Your task to perform on an android device: remove spam from my inbox in the gmail app Image 0: 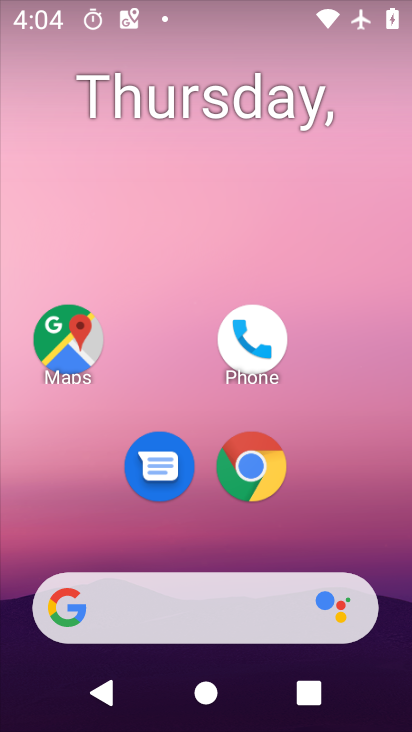
Step 0: drag from (186, 532) to (231, 86)
Your task to perform on an android device: remove spam from my inbox in the gmail app Image 1: 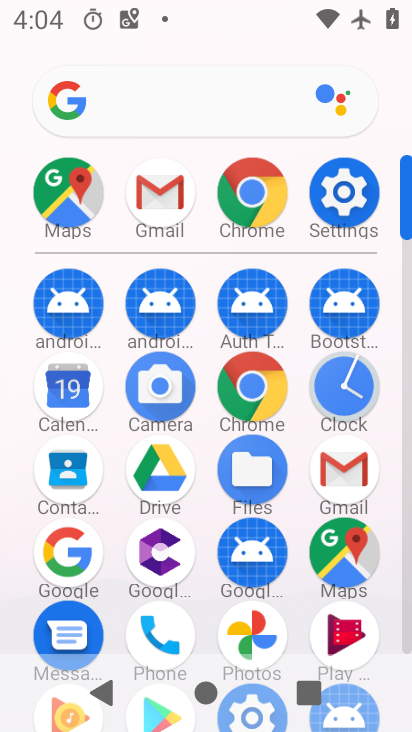
Step 1: click (344, 449)
Your task to perform on an android device: remove spam from my inbox in the gmail app Image 2: 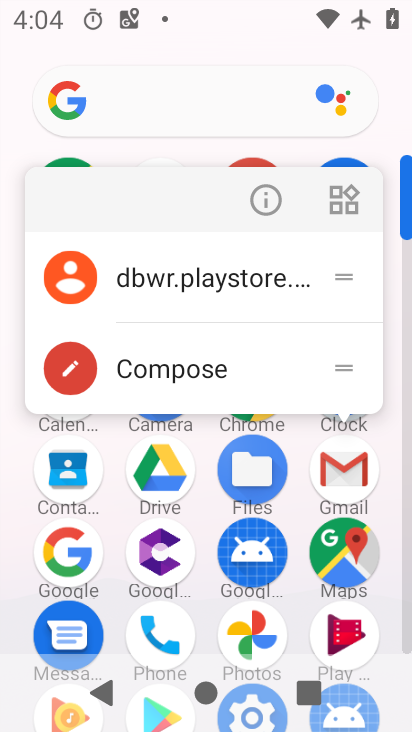
Step 2: click (254, 196)
Your task to perform on an android device: remove spam from my inbox in the gmail app Image 3: 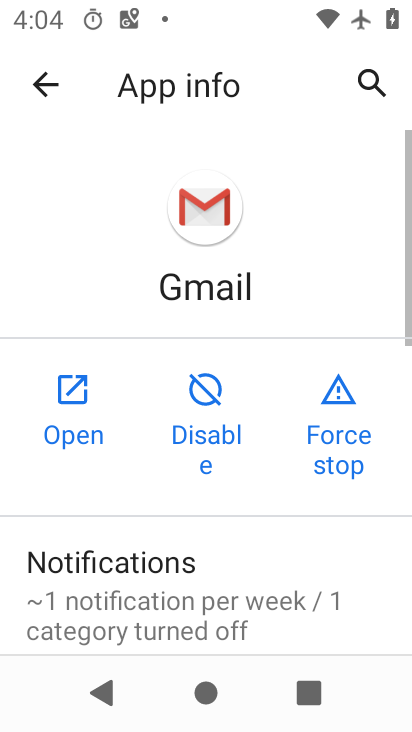
Step 3: click (56, 412)
Your task to perform on an android device: remove spam from my inbox in the gmail app Image 4: 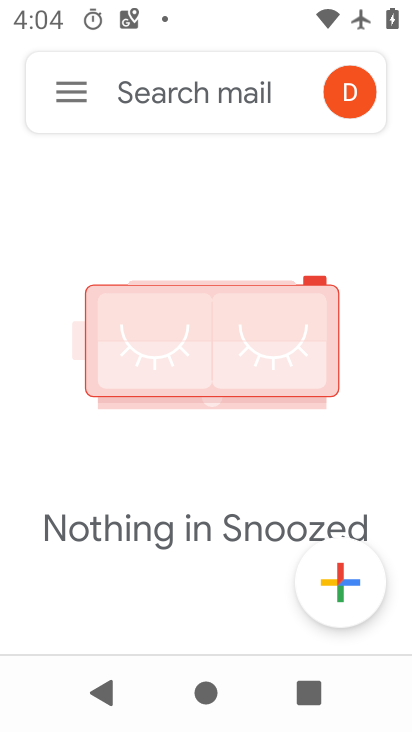
Step 4: click (69, 102)
Your task to perform on an android device: remove spam from my inbox in the gmail app Image 5: 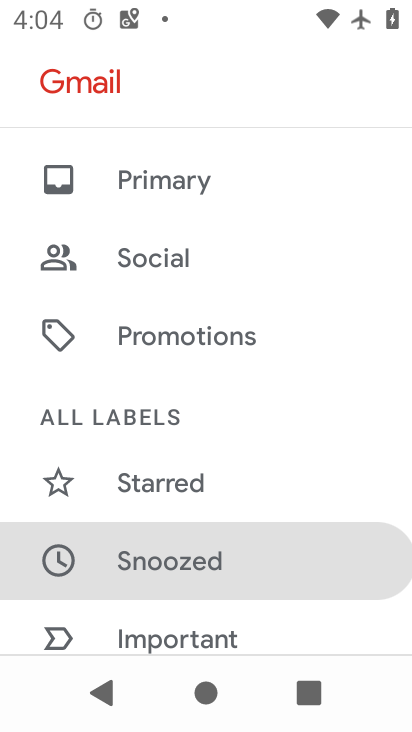
Step 5: drag from (176, 572) to (235, 305)
Your task to perform on an android device: remove spam from my inbox in the gmail app Image 6: 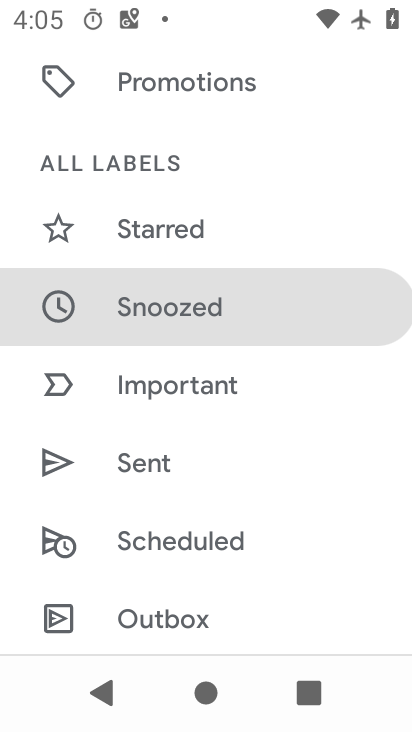
Step 6: drag from (181, 568) to (247, 115)
Your task to perform on an android device: remove spam from my inbox in the gmail app Image 7: 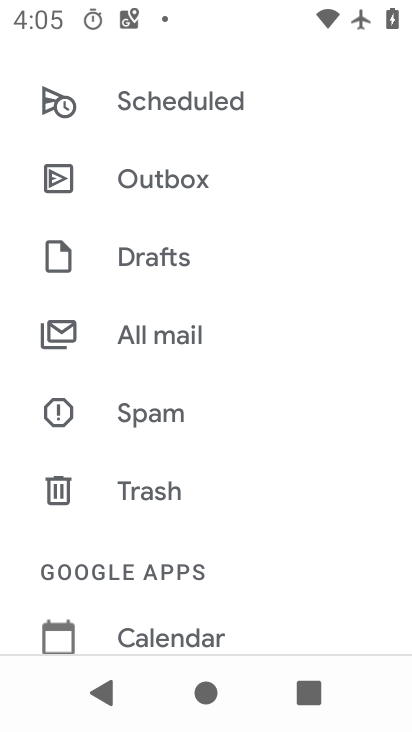
Step 7: click (138, 420)
Your task to perform on an android device: remove spam from my inbox in the gmail app Image 8: 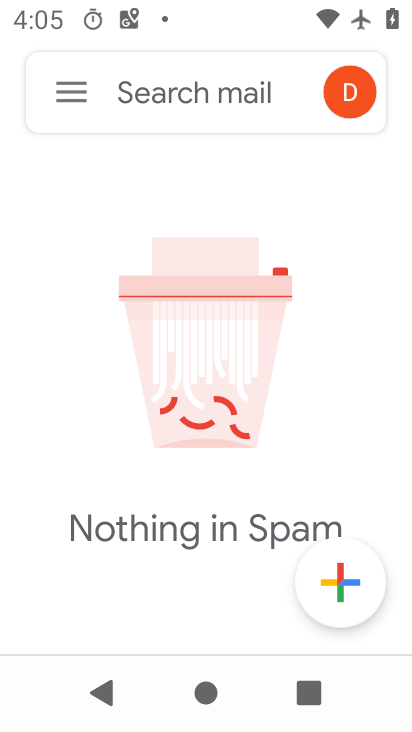
Step 8: click (59, 90)
Your task to perform on an android device: remove spam from my inbox in the gmail app Image 9: 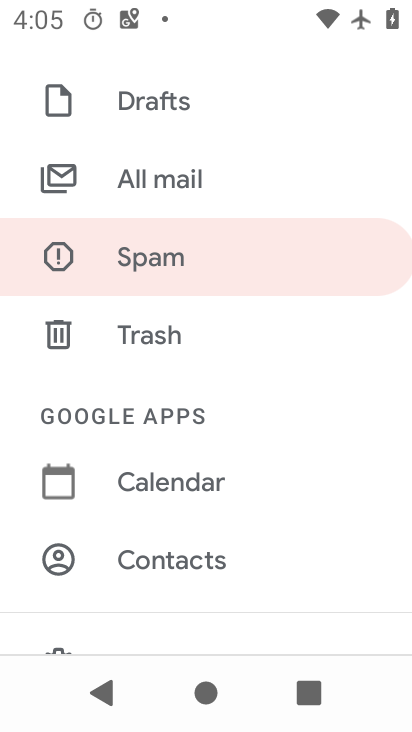
Step 9: task complete